Your task to perform on an android device: turn off data saver in the chrome app Image 0: 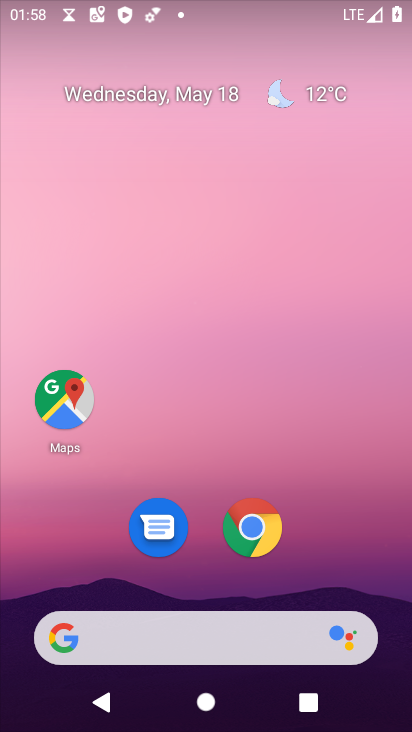
Step 0: click (252, 520)
Your task to perform on an android device: turn off data saver in the chrome app Image 1: 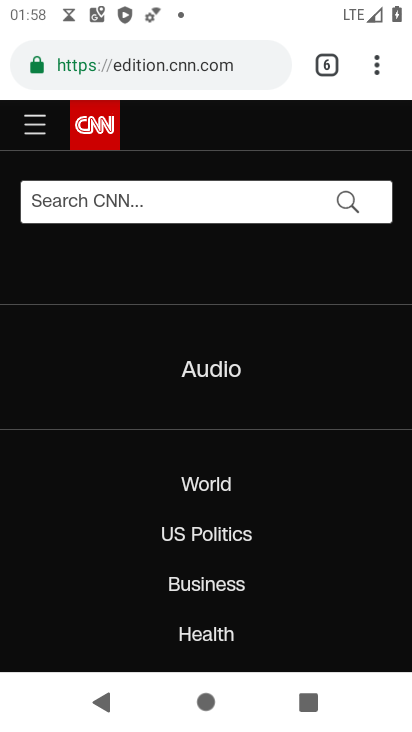
Step 1: click (379, 68)
Your task to perform on an android device: turn off data saver in the chrome app Image 2: 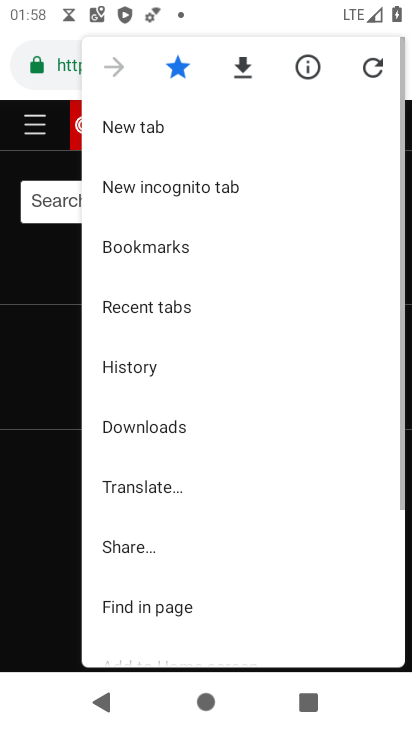
Step 2: drag from (192, 576) to (185, 165)
Your task to perform on an android device: turn off data saver in the chrome app Image 3: 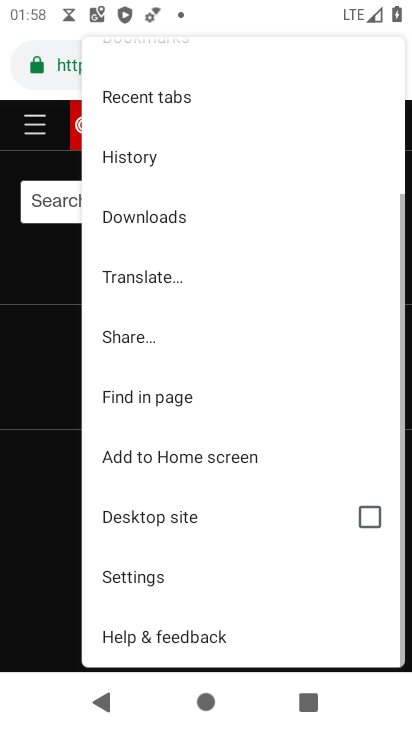
Step 3: click (180, 584)
Your task to perform on an android device: turn off data saver in the chrome app Image 4: 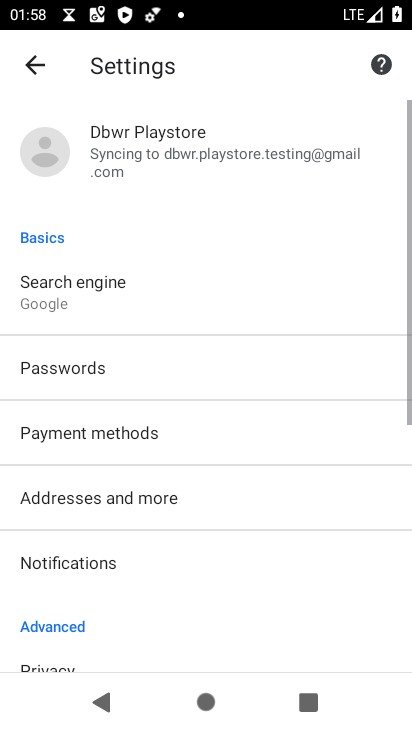
Step 4: drag from (159, 578) to (179, 246)
Your task to perform on an android device: turn off data saver in the chrome app Image 5: 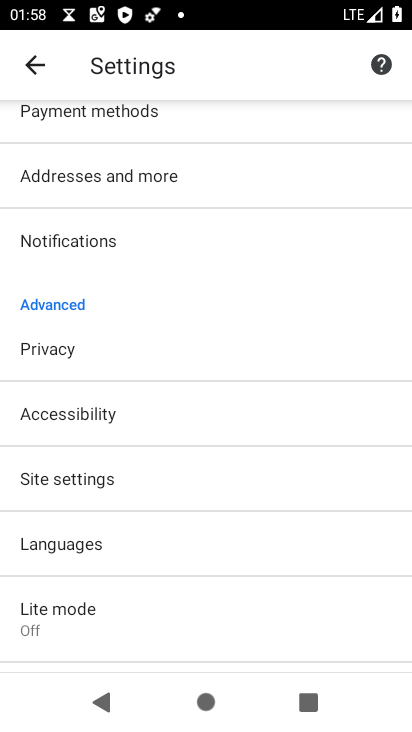
Step 5: click (87, 626)
Your task to perform on an android device: turn off data saver in the chrome app Image 6: 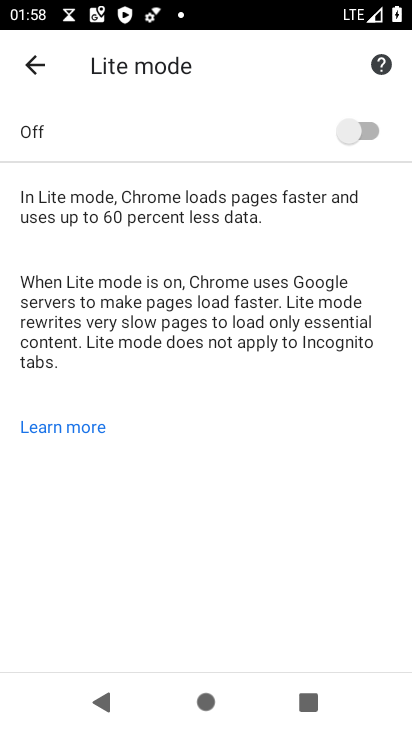
Step 6: task complete